Your task to perform on an android device: Go to eBay Image 0: 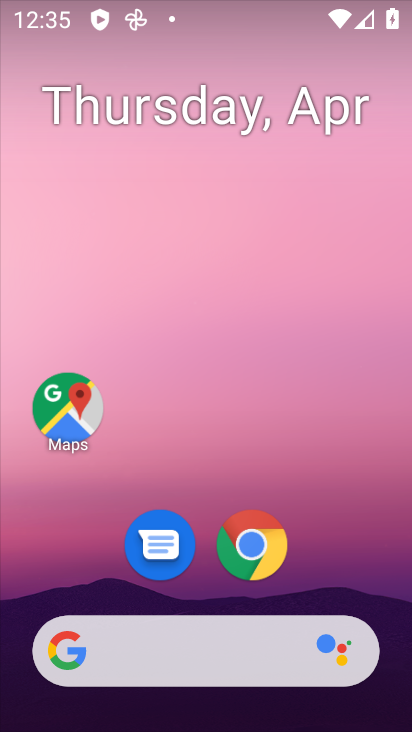
Step 0: click (242, 530)
Your task to perform on an android device: Go to eBay Image 1: 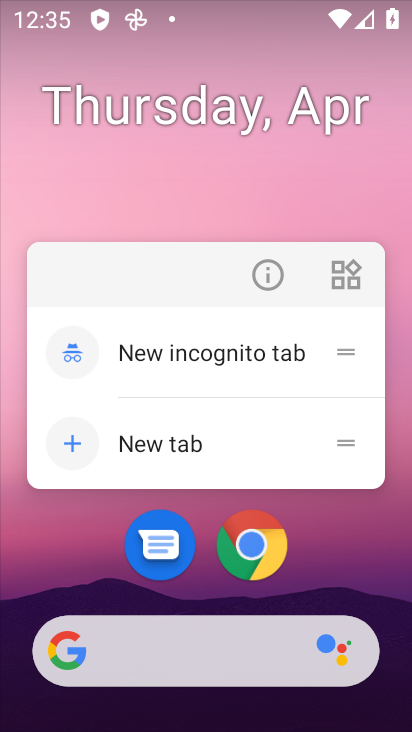
Step 1: click (251, 543)
Your task to perform on an android device: Go to eBay Image 2: 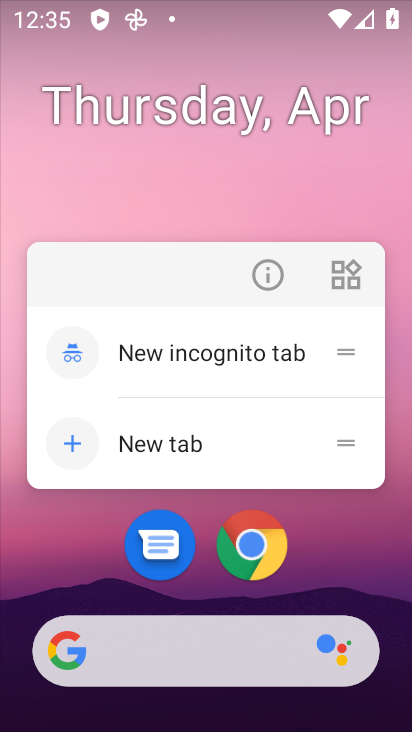
Step 2: click (250, 543)
Your task to perform on an android device: Go to eBay Image 3: 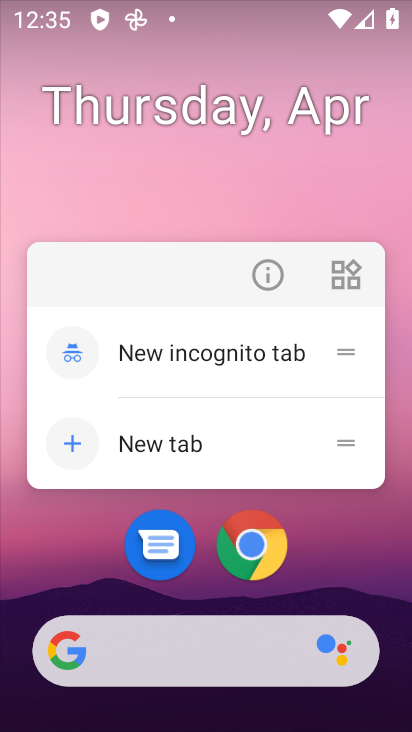
Step 3: drag from (305, 456) to (350, 16)
Your task to perform on an android device: Go to eBay Image 4: 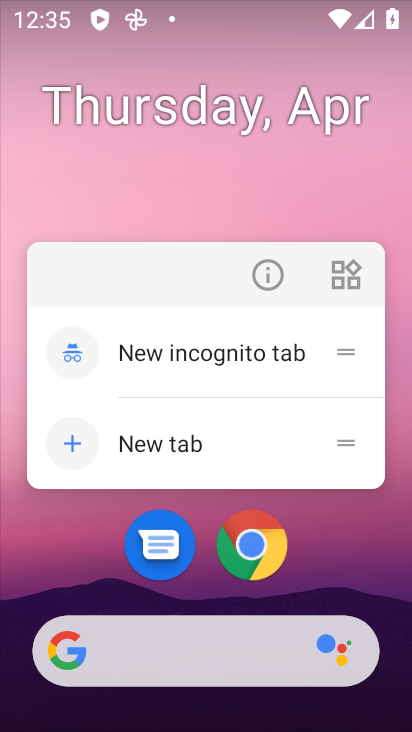
Step 4: drag from (342, 522) to (321, 11)
Your task to perform on an android device: Go to eBay Image 5: 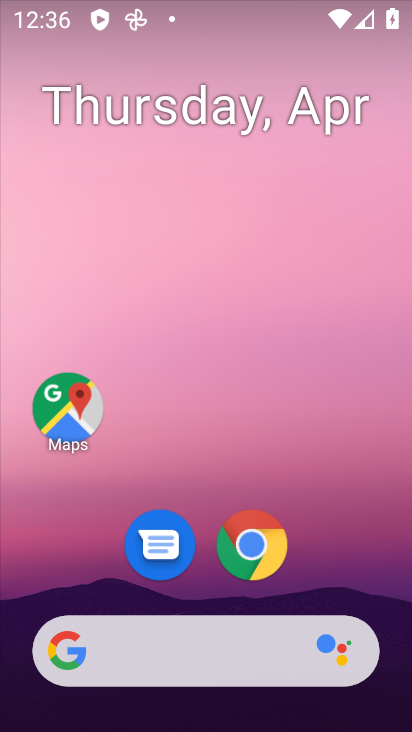
Step 5: drag from (325, 416) to (312, 39)
Your task to perform on an android device: Go to eBay Image 6: 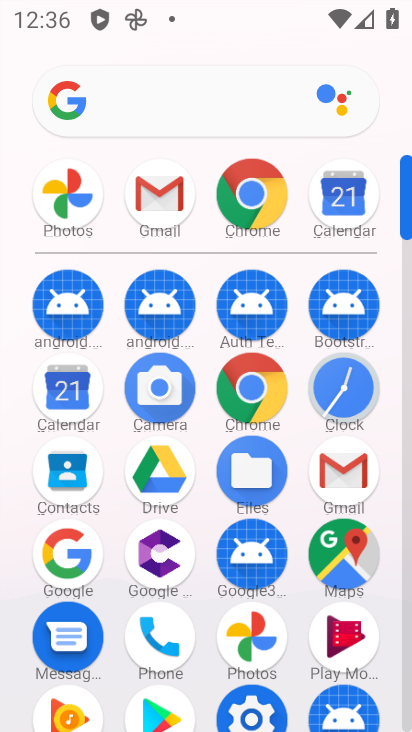
Step 6: click (240, 392)
Your task to perform on an android device: Go to eBay Image 7: 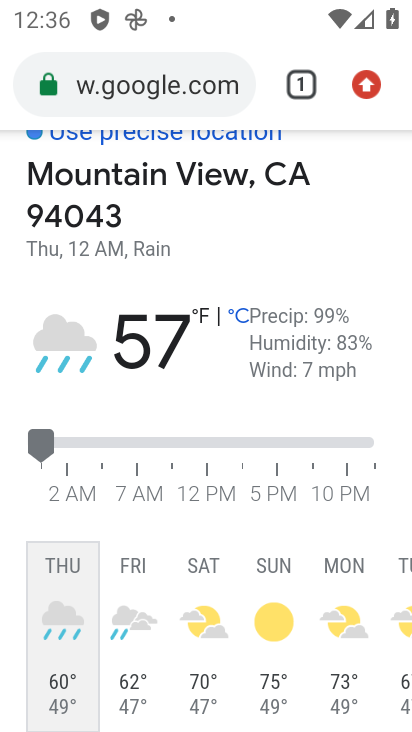
Step 7: click (151, 79)
Your task to perform on an android device: Go to eBay Image 8: 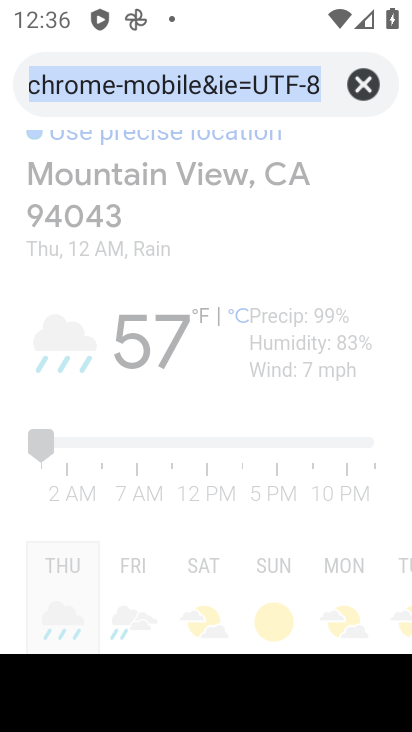
Step 8: type "ebay"
Your task to perform on an android device: Go to eBay Image 9: 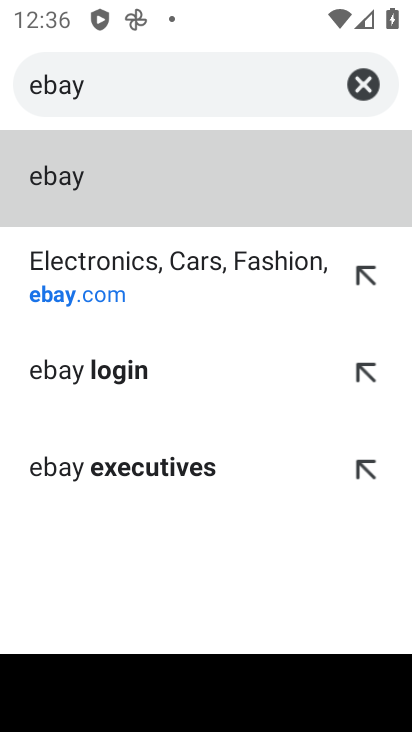
Step 9: click (85, 296)
Your task to perform on an android device: Go to eBay Image 10: 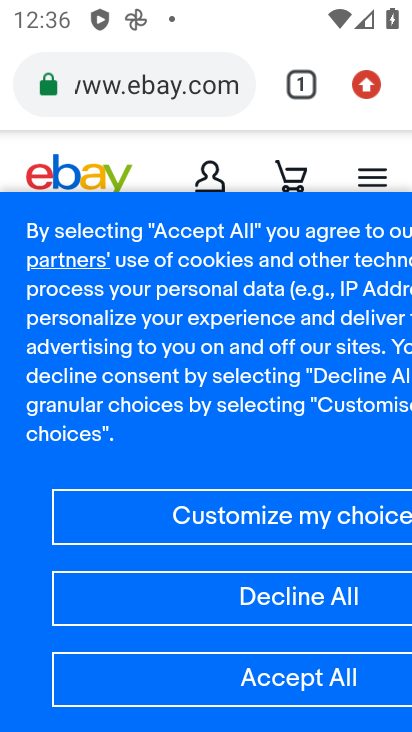
Step 10: task complete